Your task to perform on an android device: Open my contact list Image 0: 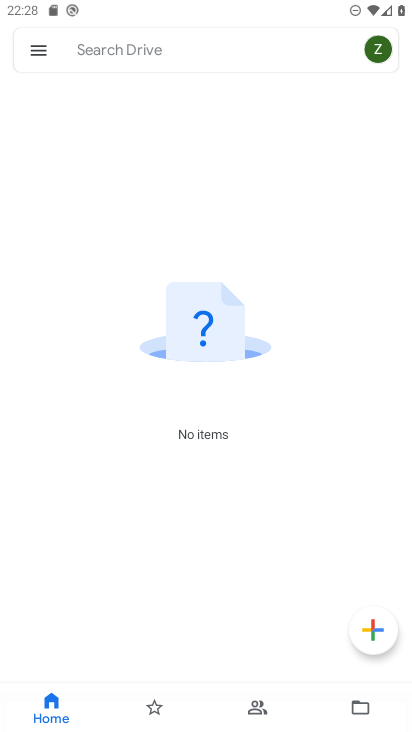
Step 0: press home button
Your task to perform on an android device: Open my contact list Image 1: 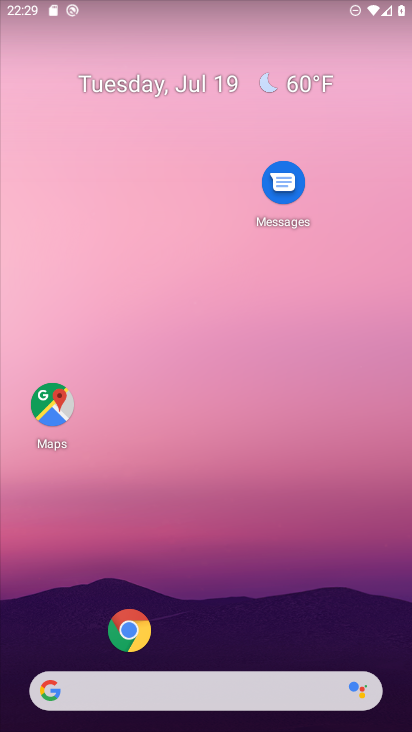
Step 1: click (358, 24)
Your task to perform on an android device: Open my contact list Image 2: 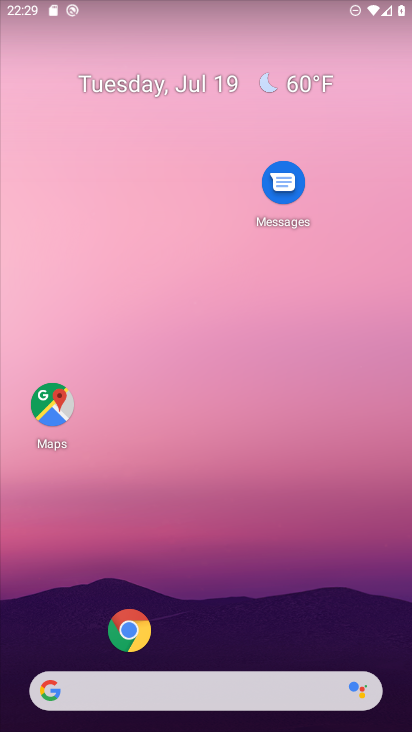
Step 2: drag from (30, 705) to (227, 129)
Your task to perform on an android device: Open my contact list Image 3: 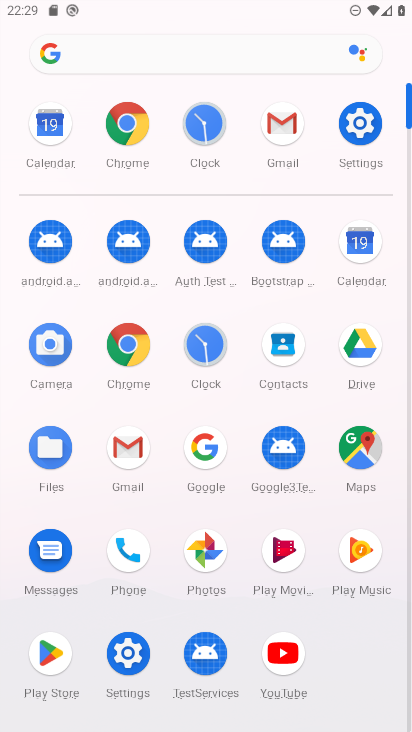
Step 3: click (132, 554)
Your task to perform on an android device: Open my contact list Image 4: 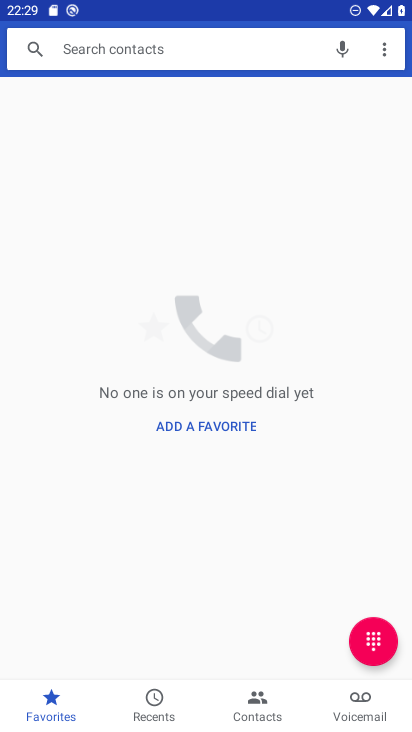
Step 4: click (254, 708)
Your task to perform on an android device: Open my contact list Image 5: 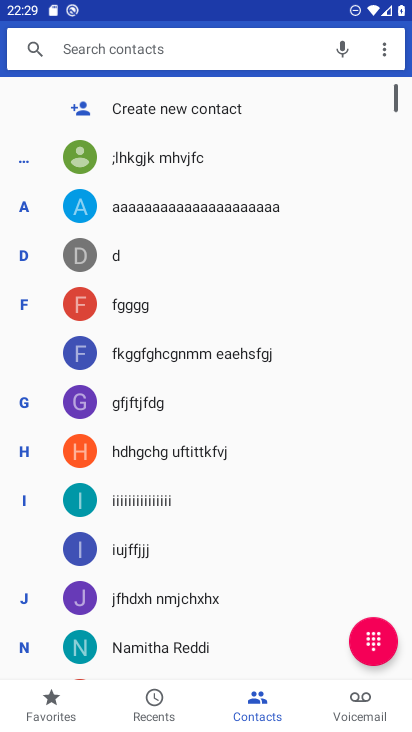
Step 5: task complete